Your task to perform on an android device: open a bookmark in the chrome app Image 0: 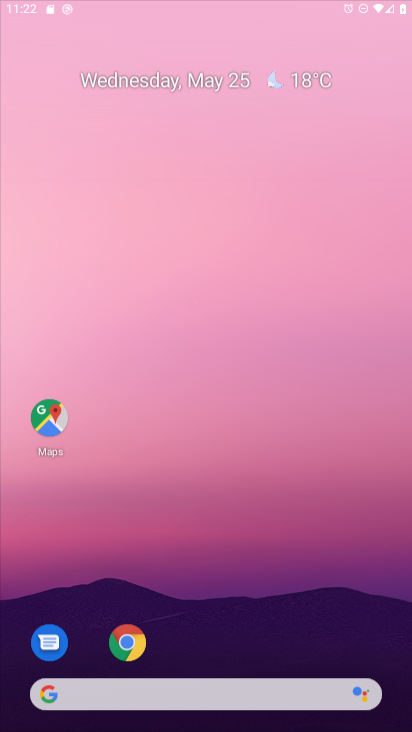
Step 0: press home button
Your task to perform on an android device: open a bookmark in the chrome app Image 1: 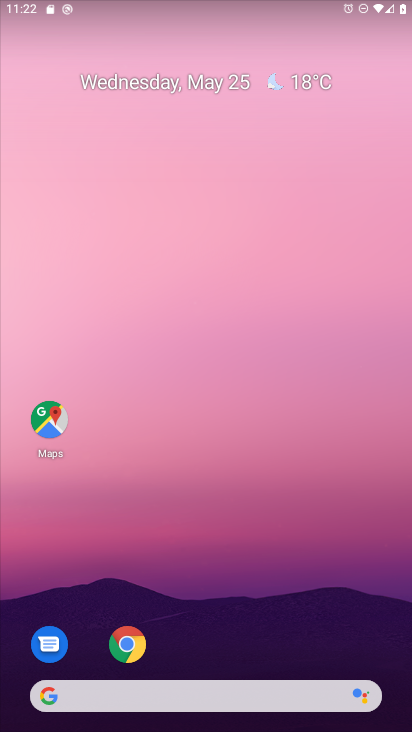
Step 1: drag from (210, 660) to (218, 69)
Your task to perform on an android device: open a bookmark in the chrome app Image 2: 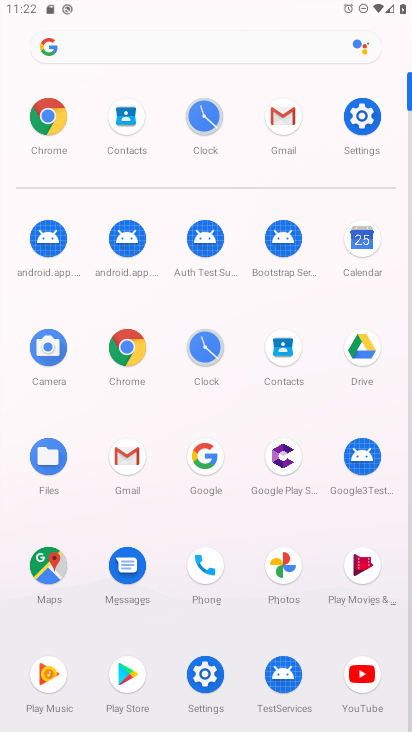
Step 2: click (202, 110)
Your task to perform on an android device: open a bookmark in the chrome app Image 3: 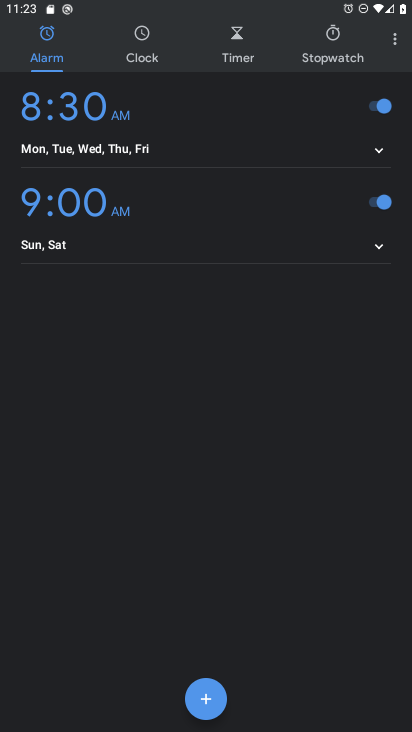
Step 3: press home button
Your task to perform on an android device: open a bookmark in the chrome app Image 4: 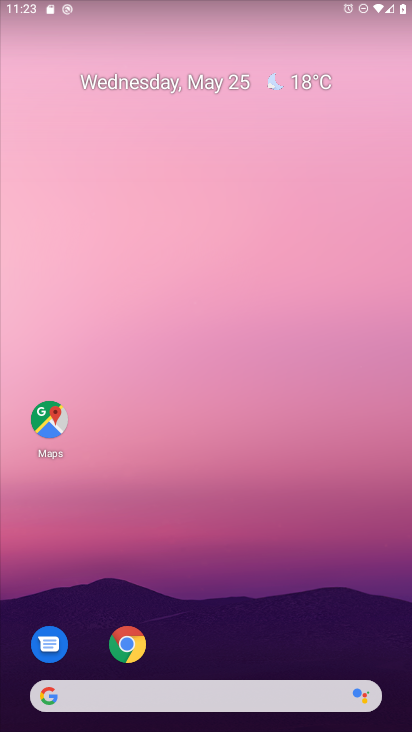
Step 4: click (126, 641)
Your task to perform on an android device: open a bookmark in the chrome app Image 5: 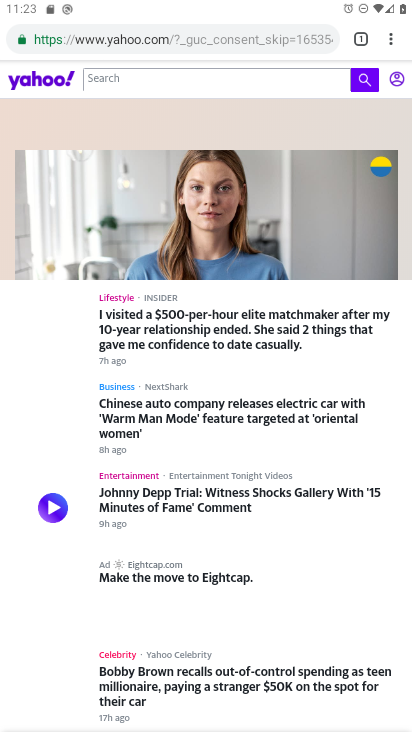
Step 5: click (388, 33)
Your task to perform on an android device: open a bookmark in the chrome app Image 6: 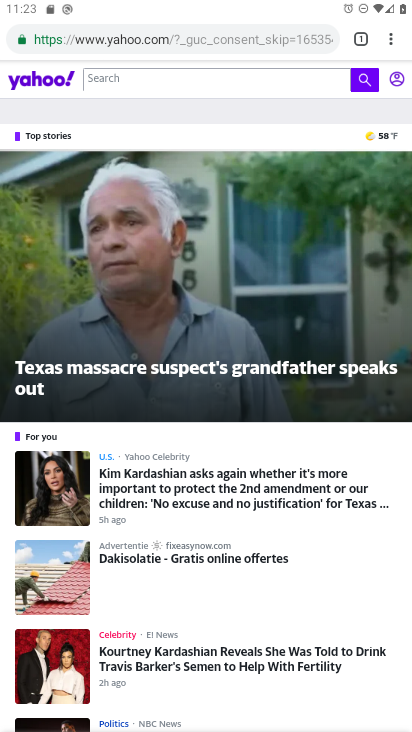
Step 6: click (390, 36)
Your task to perform on an android device: open a bookmark in the chrome app Image 7: 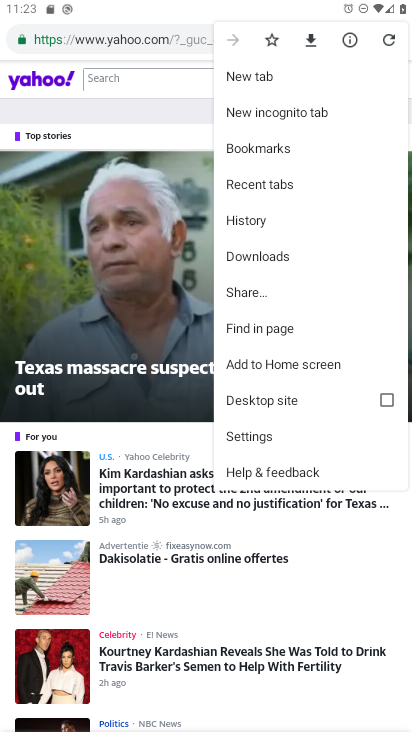
Step 7: click (300, 142)
Your task to perform on an android device: open a bookmark in the chrome app Image 8: 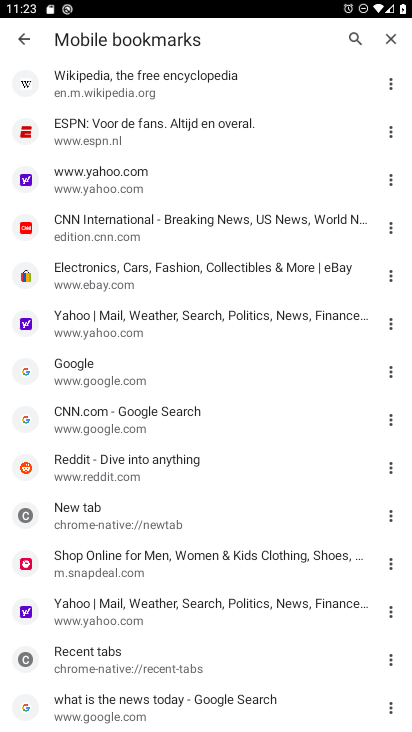
Step 8: click (162, 231)
Your task to perform on an android device: open a bookmark in the chrome app Image 9: 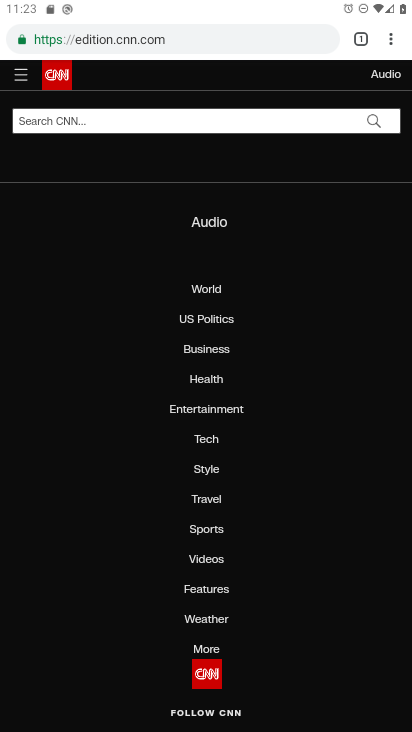
Step 9: task complete